Your task to perform on an android device: turn off wifi Image 0: 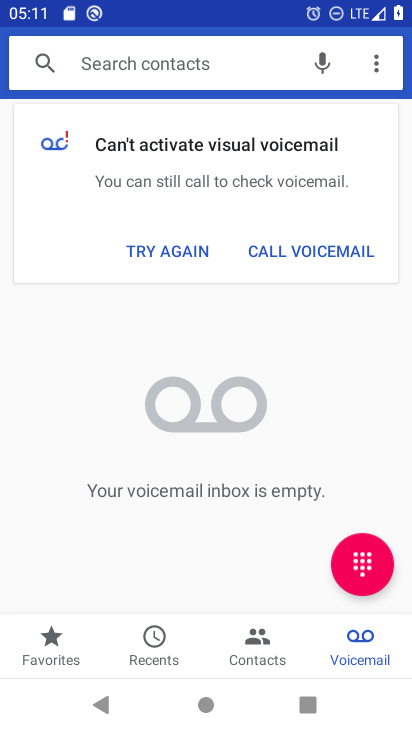
Step 0: press home button
Your task to perform on an android device: turn off wifi Image 1: 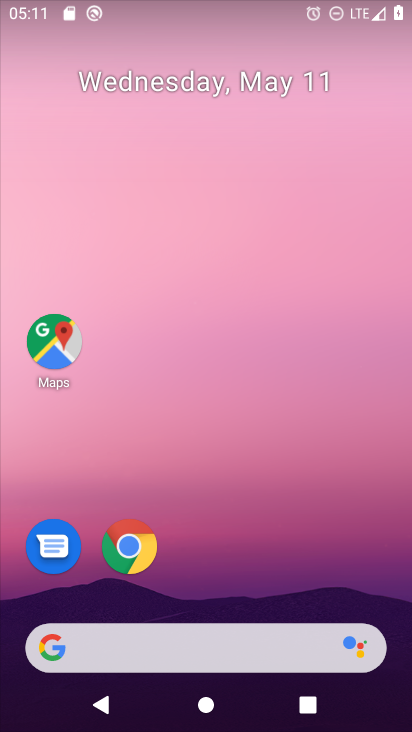
Step 1: drag from (274, 552) to (384, 51)
Your task to perform on an android device: turn off wifi Image 2: 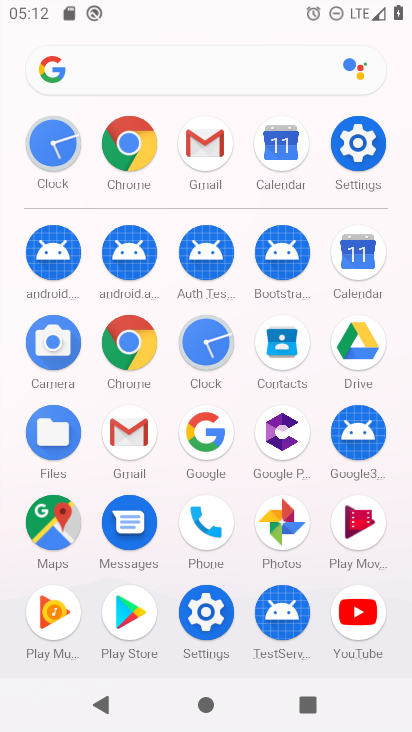
Step 2: click (346, 156)
Your task to perform on an android device: turn off wifi Image 3: 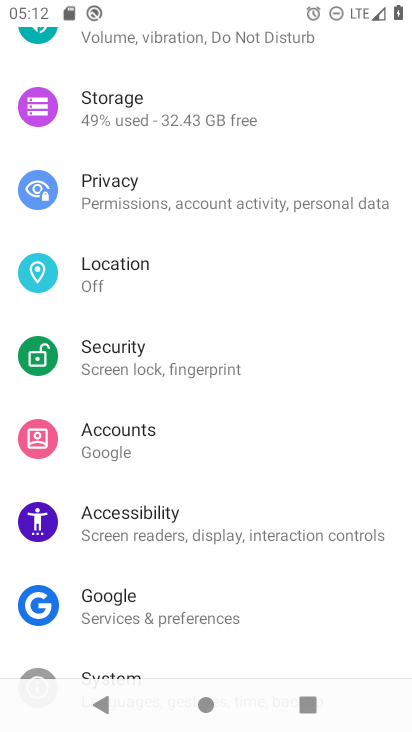
Step 3: drag from (163, 166) to (200, 722)
Your task to perform on an android device: turn off wifi Image 4: 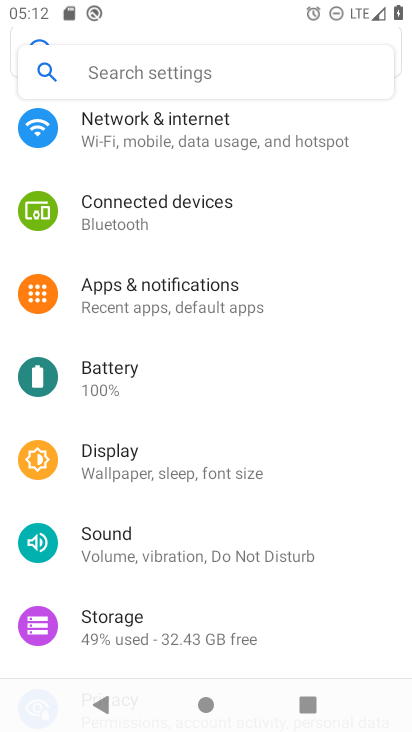
Step 4: drag from (214, 183) to (232, 643)
Your task to perform on an android device: turn off wifi Image 5: 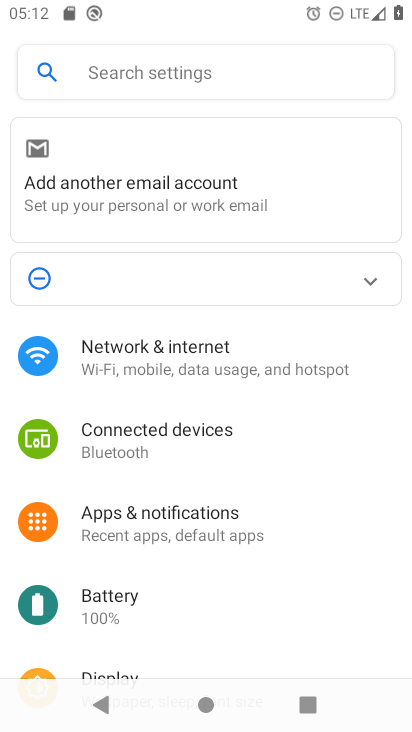
Step 5: click (205, 174)
Your task to perform on an android device: turn off wifi Image 6: 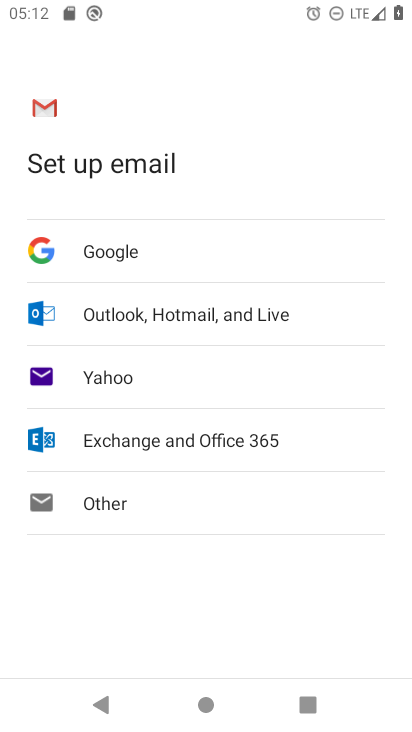
Step 6: press back button
Your task to perform on an android device: turn off wifi Image 7: 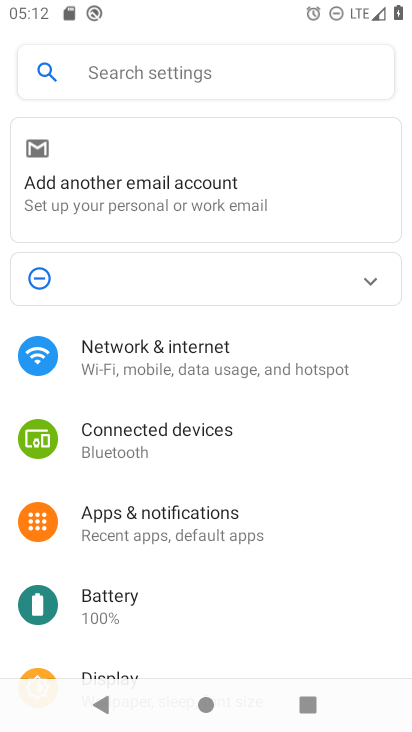
Step 7: click (224, 360)
Your task to perform on an android device: turn off wifi Image 8: 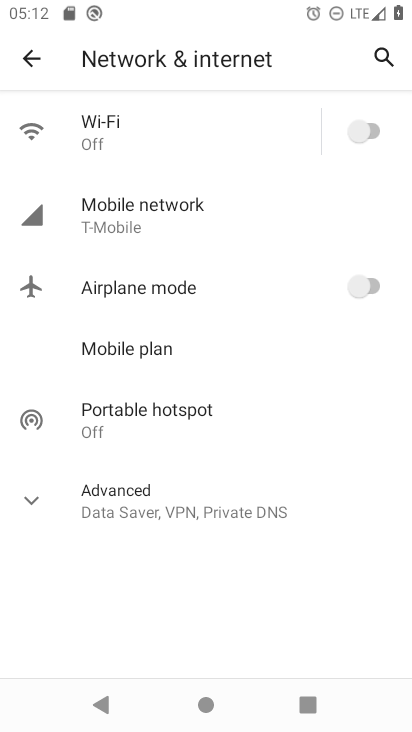
Step 8: task complete